Your task to perform on an android device: open app "LinkedIn" (install if not already installed) and enter user name: "dirt@inbox.com" and password: "receptionist" Image 0: 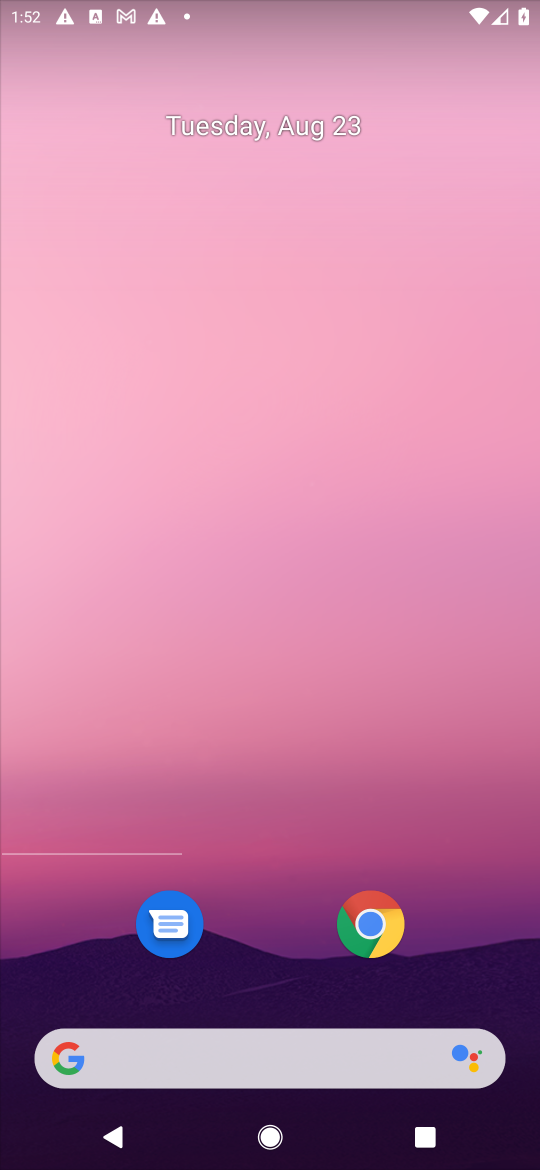
Step 0: press home button
Your task to perform on an android device: open app "LinkedIn" (install if not already installed) and enter user name: "dirt@inbox.com" and password: "receptionist" Image 1: 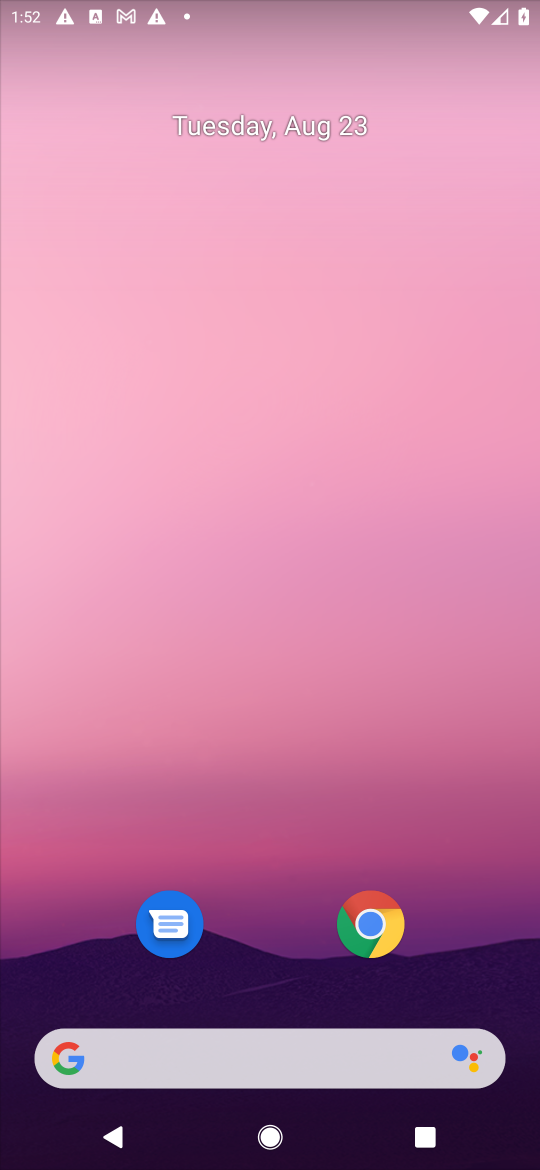
Step 1: drag from (482, 827) to (480, 222)
Your task to perform on an android device: open app "LinkedIn" (install if not already installed) and enter user name: "dirt@inbox.com" and password: "receptionist" Image 2: 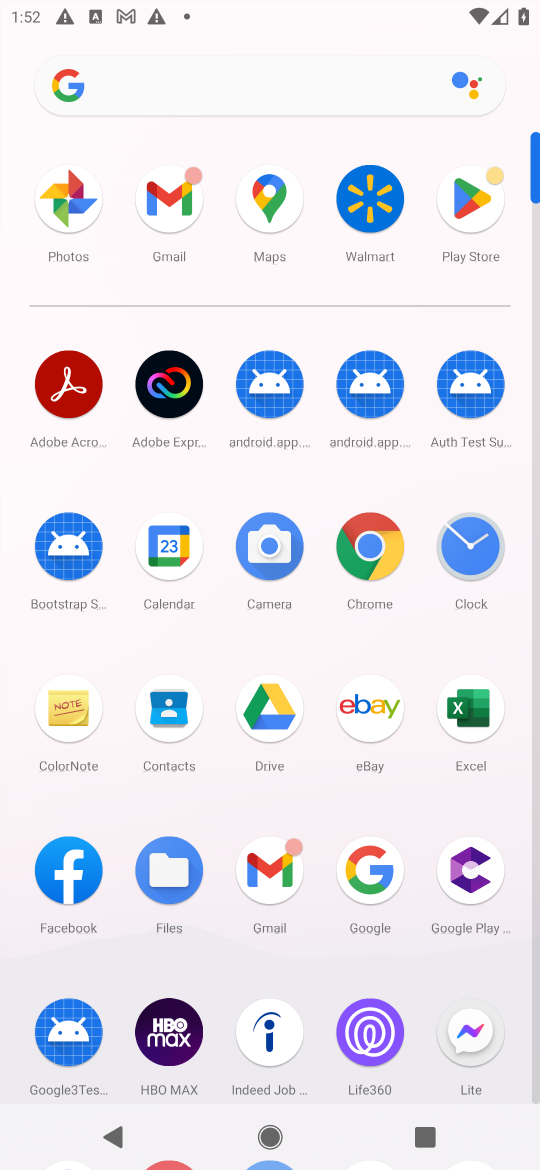
Step 2: click (473, 188)
Your task to perform on an android device: open app "LinkedIn" (install if not already installed) and enter user name: "dirt@inbox.com" and password: "receptionist" Image 3: 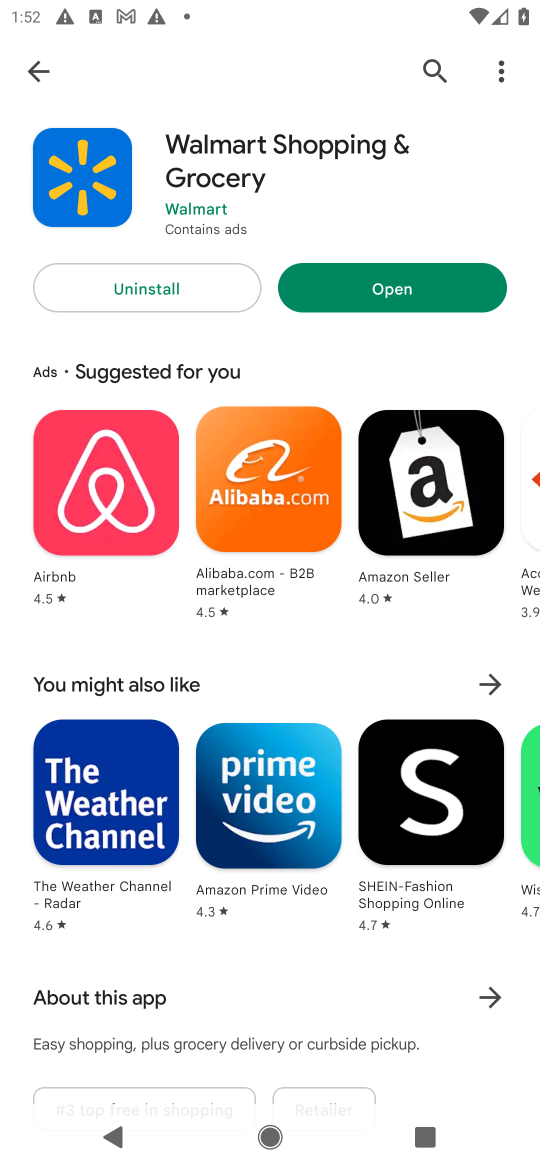
Step 3: press back button
Your task to perform on an android device: open app "LinkedIn" (install if not already installed) and enter user name: "dirt@inbox.com" and password: "receptionist" Image 4: 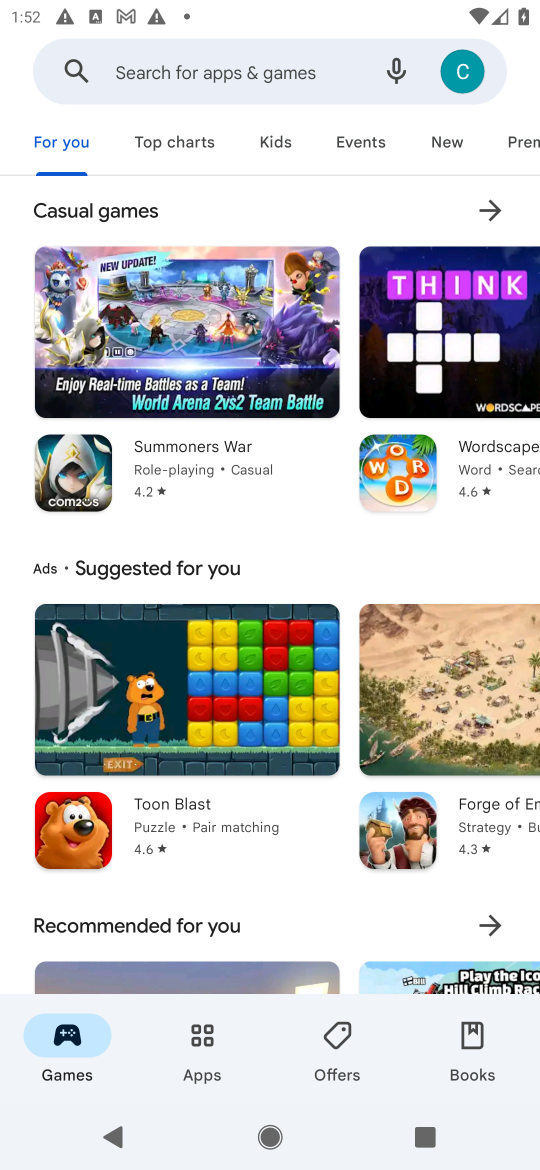
Step 4: click (235, 72)
Your task to perform on an android device: open app "LinkedIn" (install if not already installed) and enter user name: "dirt@inbox.com" and password: "receptionist" Image 5: 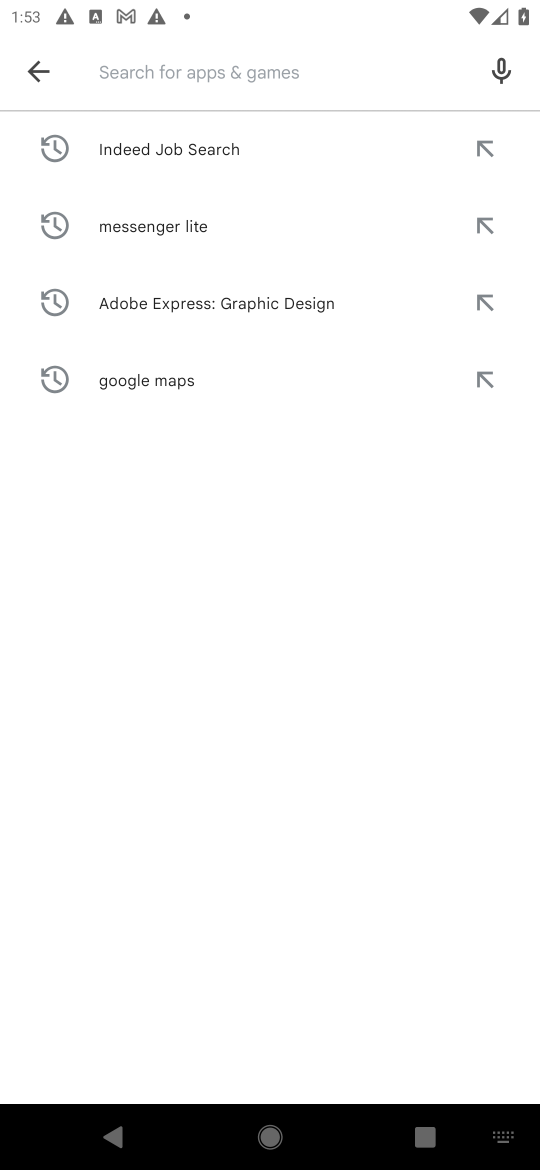
Step 5: type "LinkedIn"
Your task to perform on an android device: open app "LinkedIn" (install if not already installed) and enter user name: "dirt@inbox.com" and password: "receptionist" Image 6: 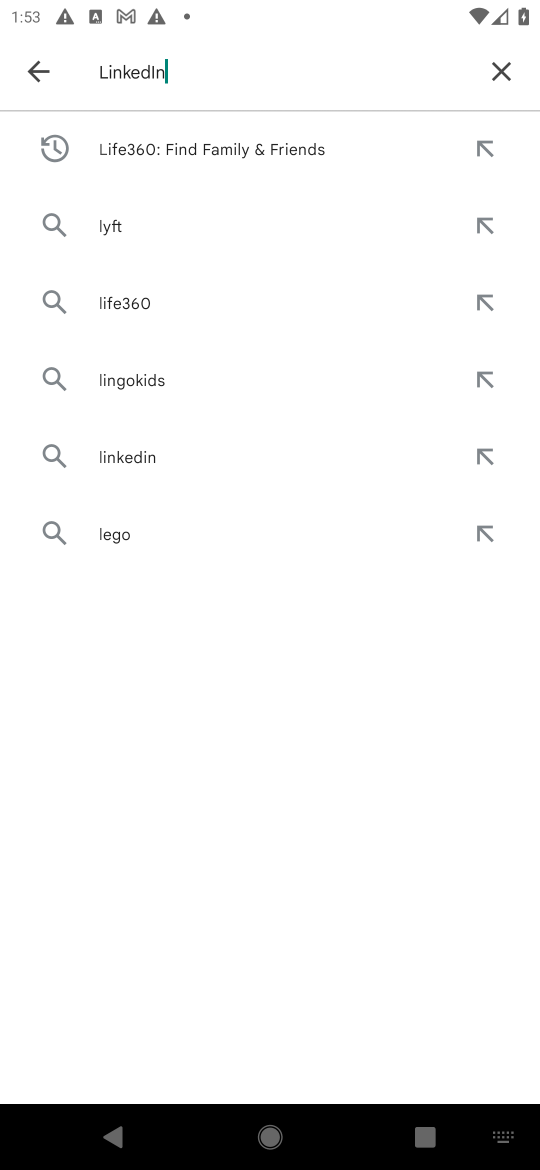
Step 6: press enter
Your task to perform on an android device: open app "LinkedIn" (install if not already installed) and enter user name: "dirt@inbox.com" and password: "receptionist" Image 7: 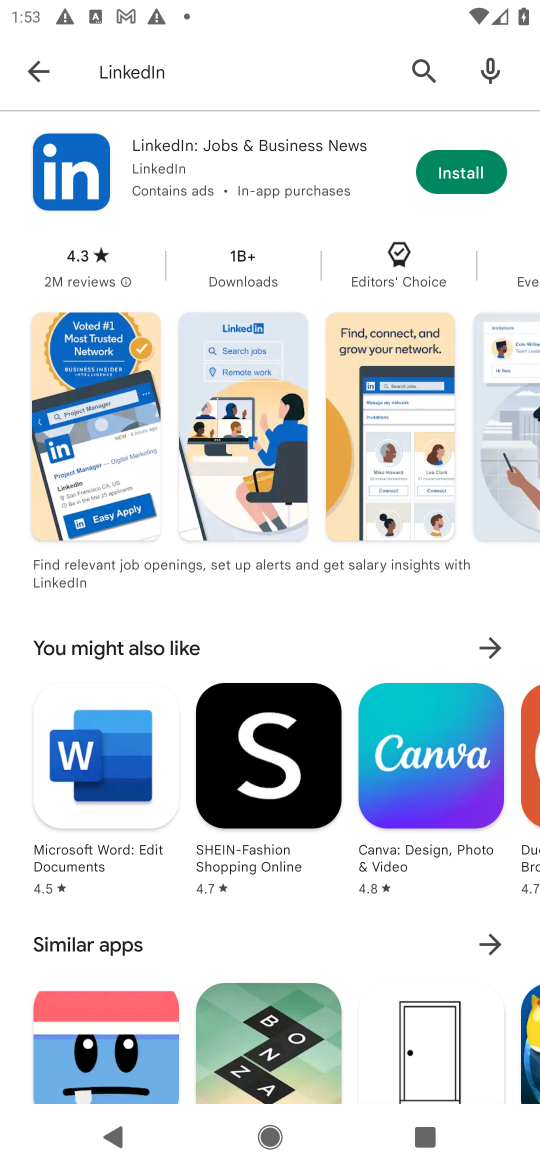
Step 7: click (474, 172)
Your task to perform on an android device: open app "LinkedIn" (install if not already installed) and enter user name: "dirt@inbox.com" and password: "receptionist" Image 8: 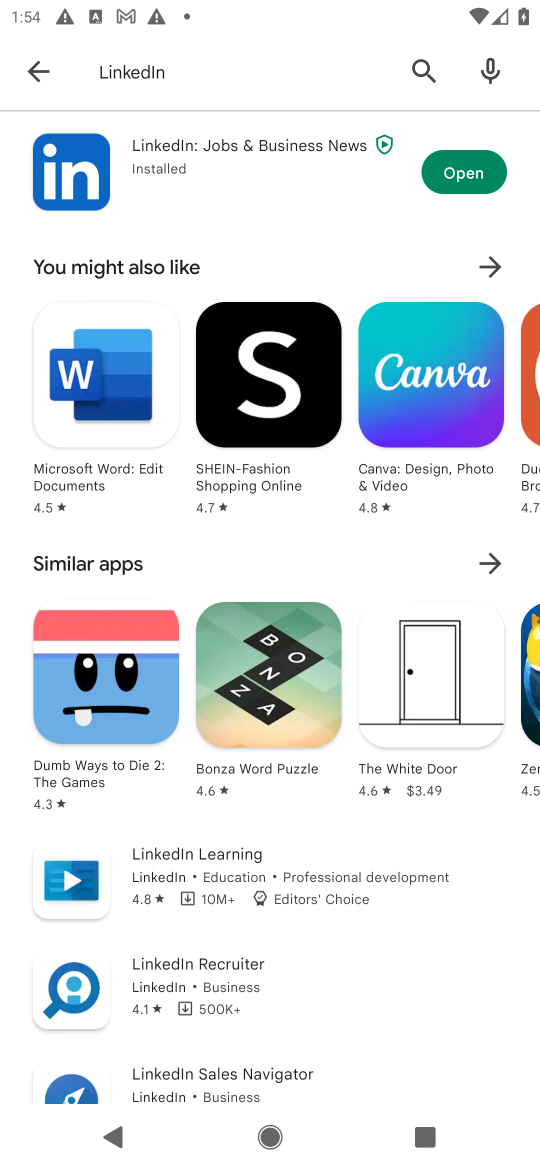
Step 8: click (473, 177)
Your task to perform on an android device: open app "LinkedIn" (install if not already installed) and enter user name: "dirt@inbox.com" and password: "receptionist" Image 9: 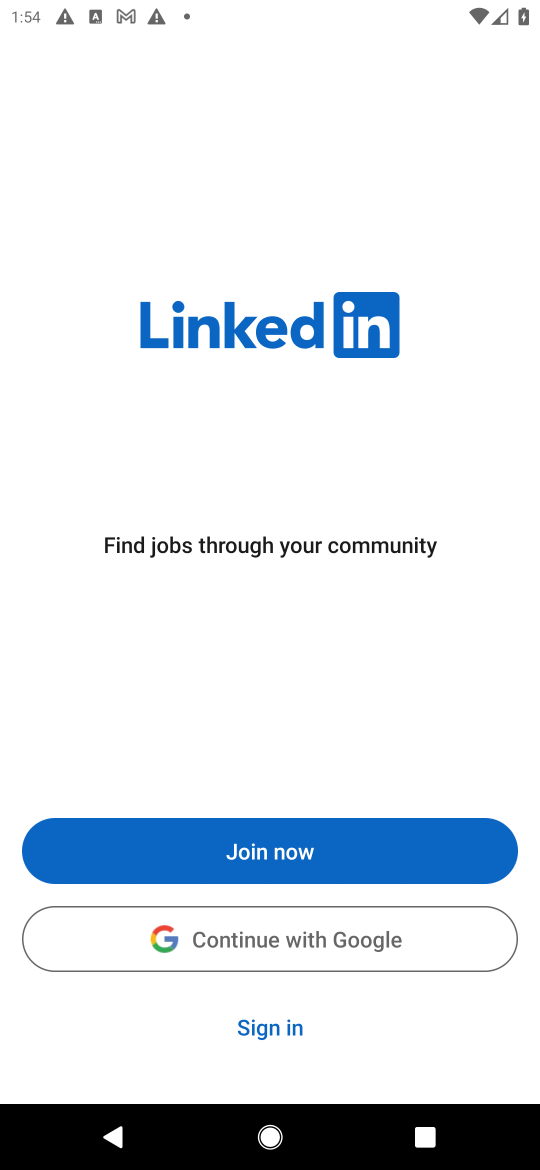
Step 9: click (295, 1038)
Your task to perform on an android device: open app "LinkedIn" (install if not already installed) and enter user name: "dirt@inbox.com" and password: "receptionist" Image 10: 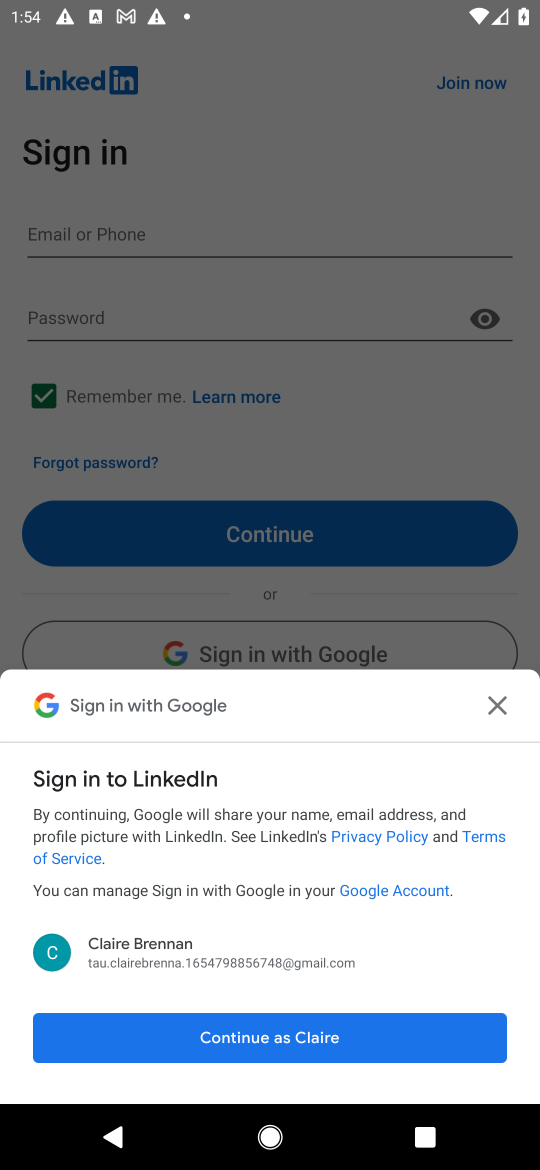
Step 10: click (493, 701)
Your task to perform on an android device: open app "LinkedIn" (install if not already installed) and enter user name: "dirt@inbox.com" and password: "receptionist" Image 11: 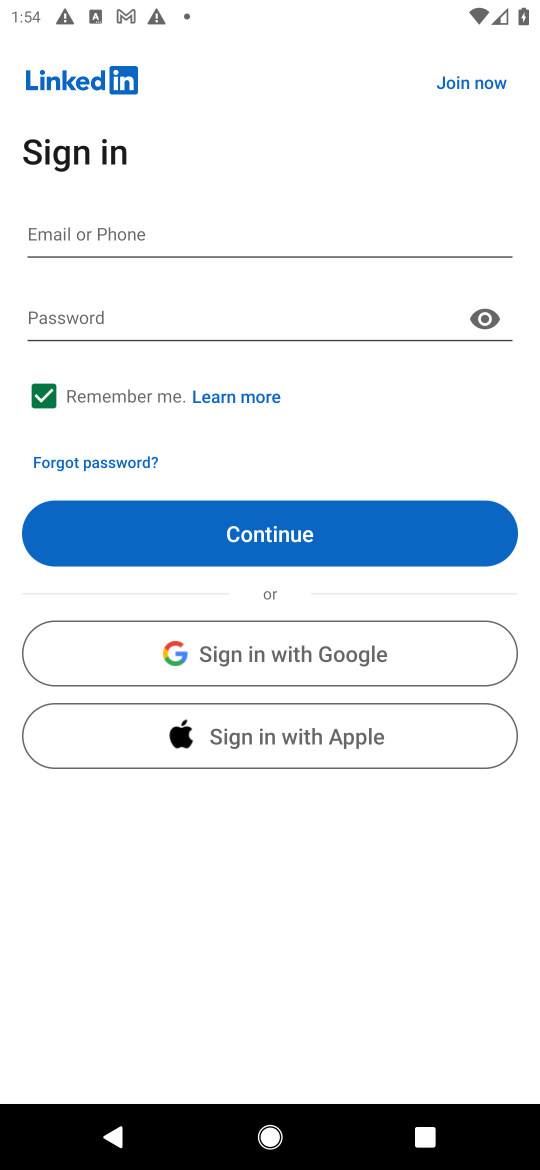
Step 11: click (169, 234)
Your task to perform on an android device: open app "LinkedIn" (install if not already installed) and enter user name: "dirt@inbox.com" and password: "receptionist" Image 12: 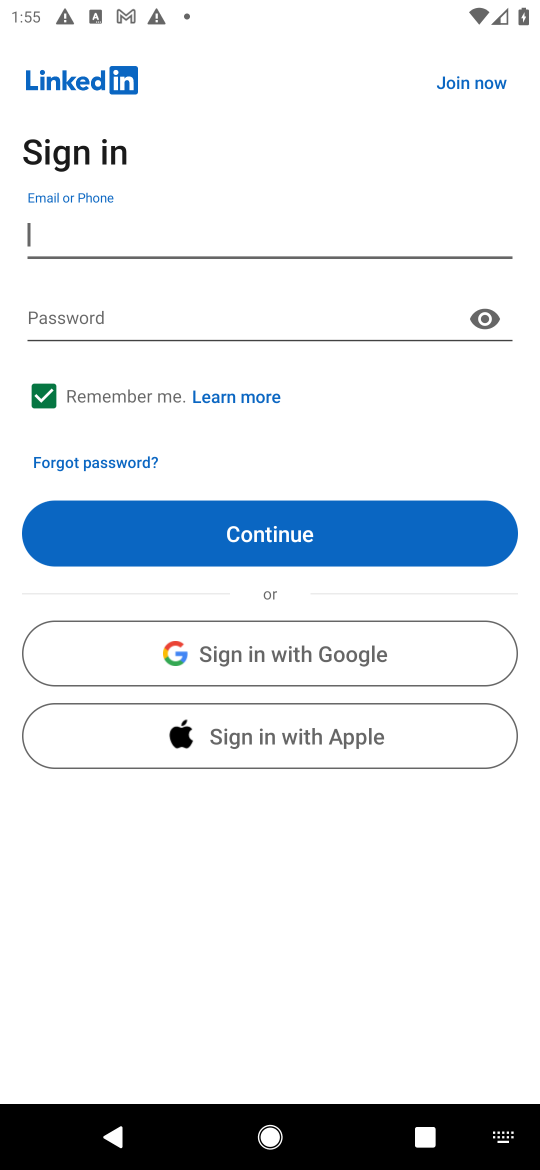
Step 12: press enter
Your task to perform on an android device: open app "LinkedIn" (install if not already installed) and enter user name: "dirt@inbox.com" and password: "receptionist" Image 13: 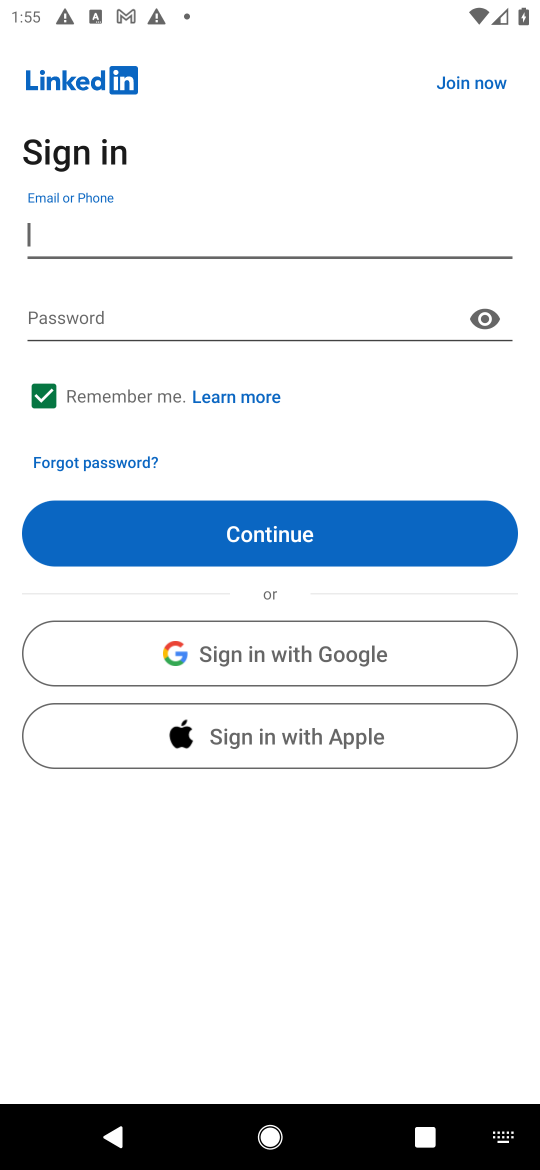
Step 13: type "dirt@inbox.com"
Your task to perform on an android device: open app "LinkedIn" (install if not already installed) and enter user name: "dirt@inbox.com" and password: "receptionist" Image 14: 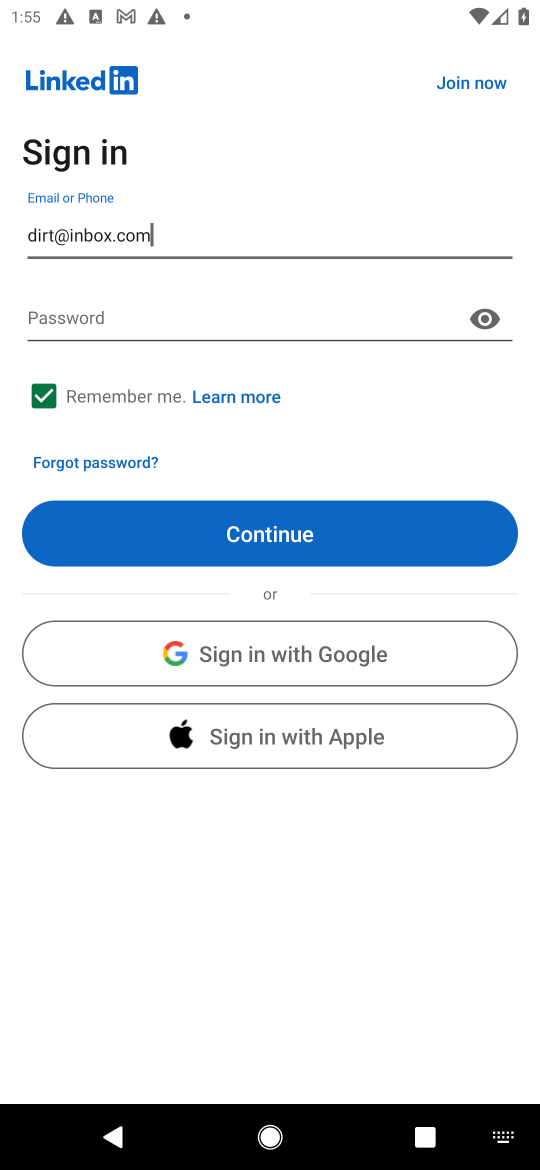
Step 14: click (212, 304)
Your task to perform on an android device: open app "LinkedIn" (install if not already installed) and enter user name: "dirt@inbox.com" and password: "receptionist" Image 15: 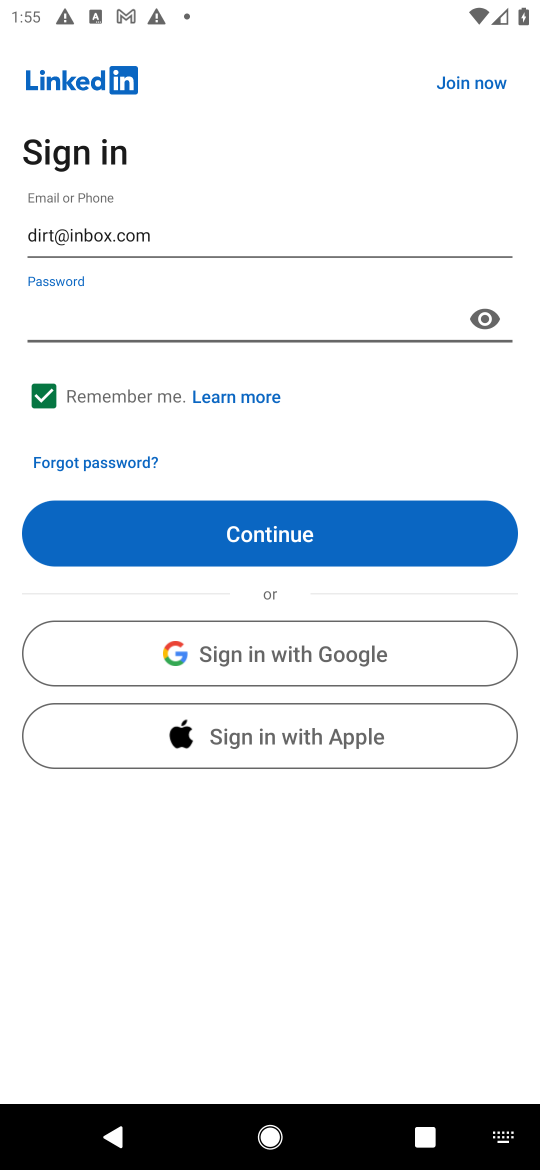
Step 15: type "receptionist"
Your task to perform on an android device: open app "LinkedIn" (install if not already installed) and enter user name: "dirt@inbox.com" and password: "receptionist" Image 16: 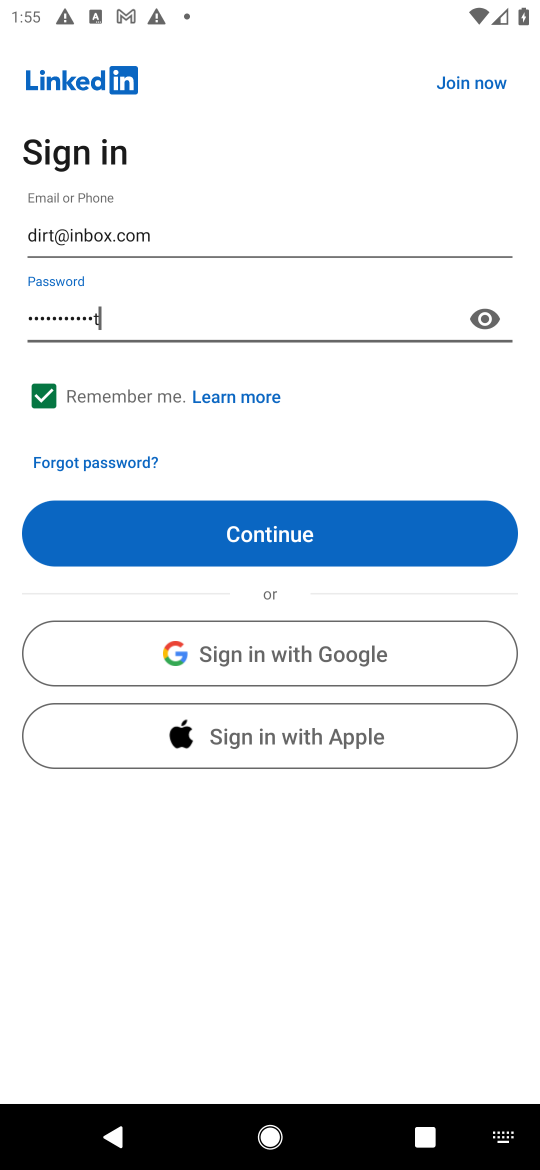
Step 16: press enter
Your task to perform on an android device: open app "LinkedIn" (install if not already installed) and enter user name: "dirt@inbox.com" and password: "receptionist" Image 17: 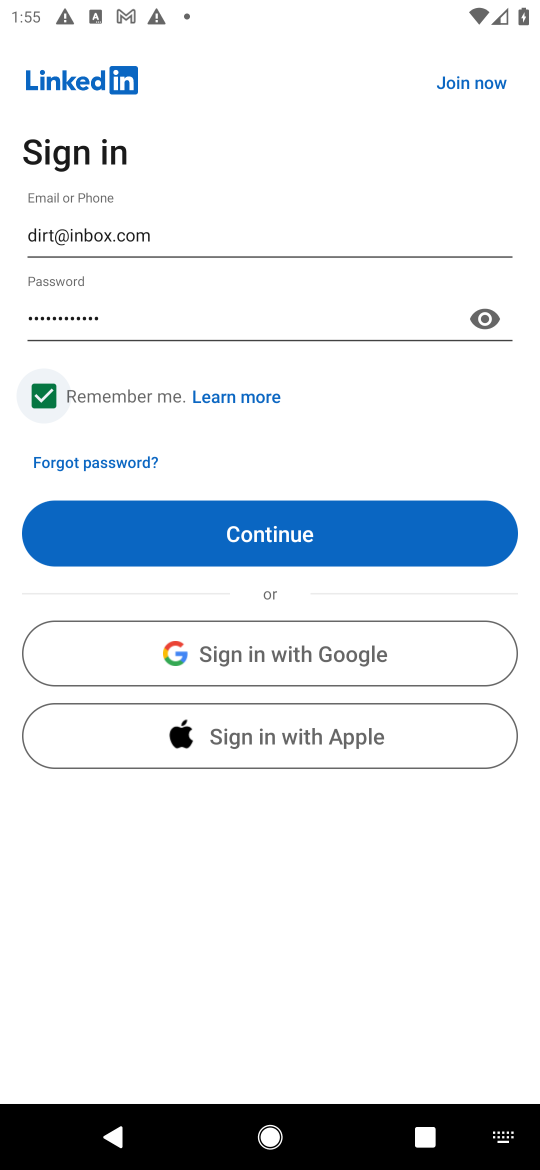
Step 17: task complete